Your task to perform on an android device: turn off notifications settings in the gmail app Image 0: 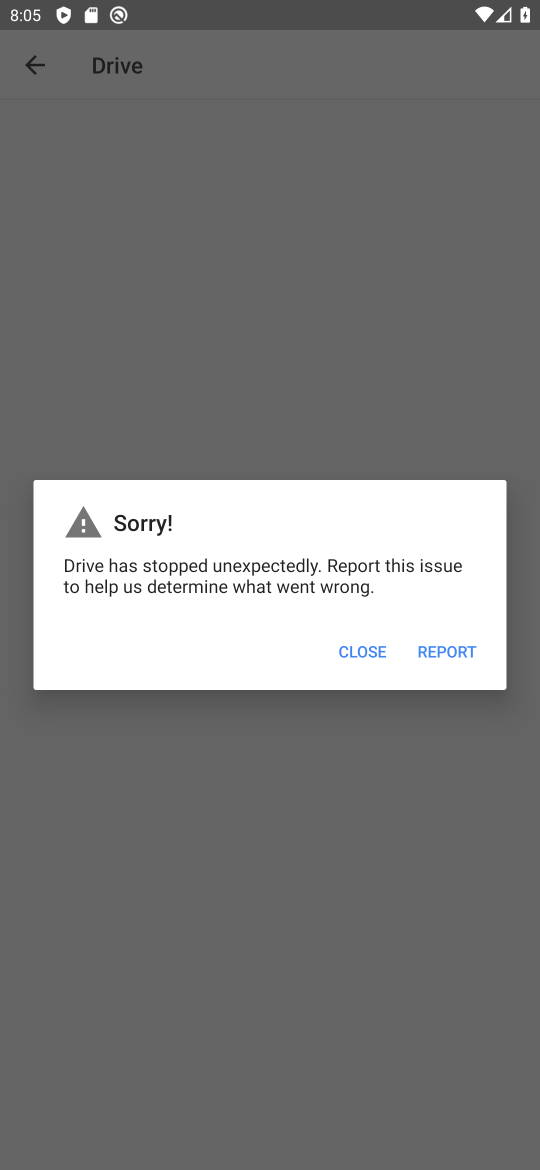
Step 0: press home button
Your task to perform on an android device: turn off notifications settings in the gmail app Image 1: 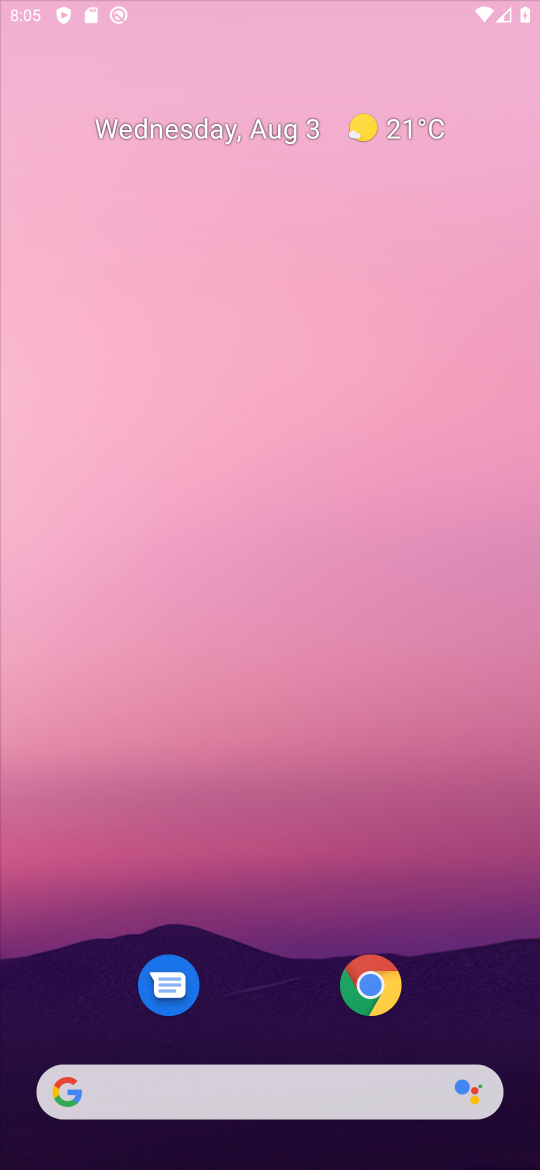
Step 1: drag from (261, 970) to (178, 196)
Your task to perform on an android device: turn off notifications settings in the gmail app Image 2: 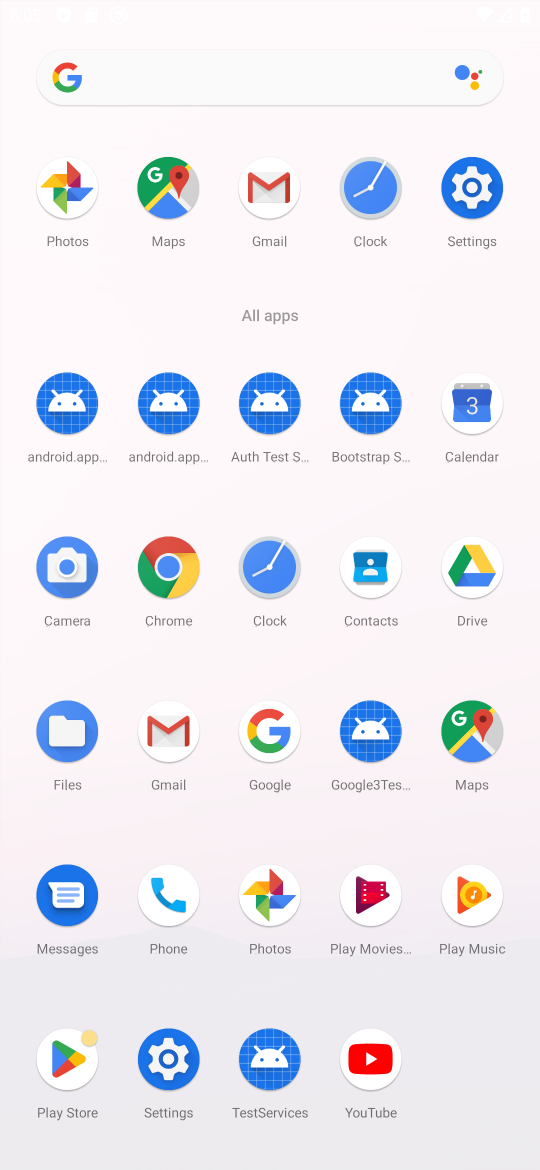
Step 2: click (258, 216)
Your task to perform on an android device: turn off notifications settings in the gmail app Image 3: 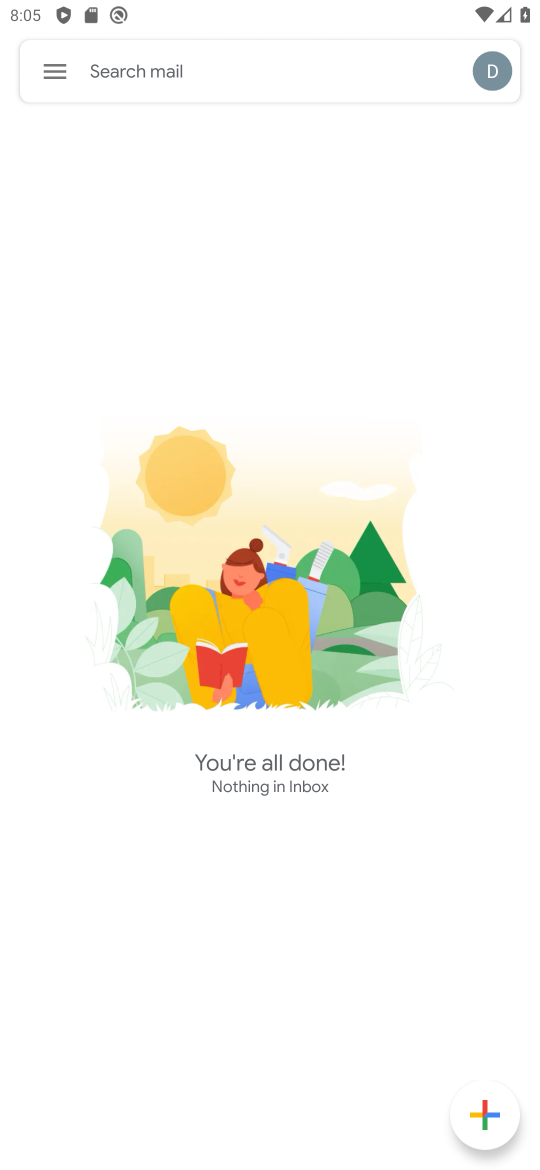
Step 3: click (51, 61)
Your task to perform on an android device: turn off notifications settings in the gmail app Image 4: 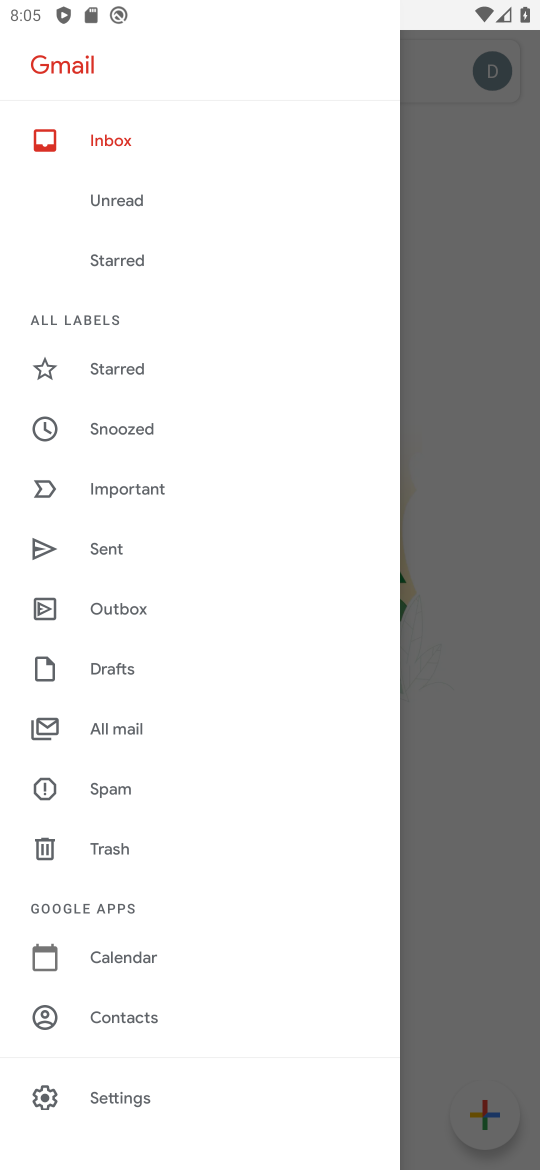
Step 4: click (167, 1089)
Your task to perform on an android device: turn off notifications settings in the gmail app Image 5: 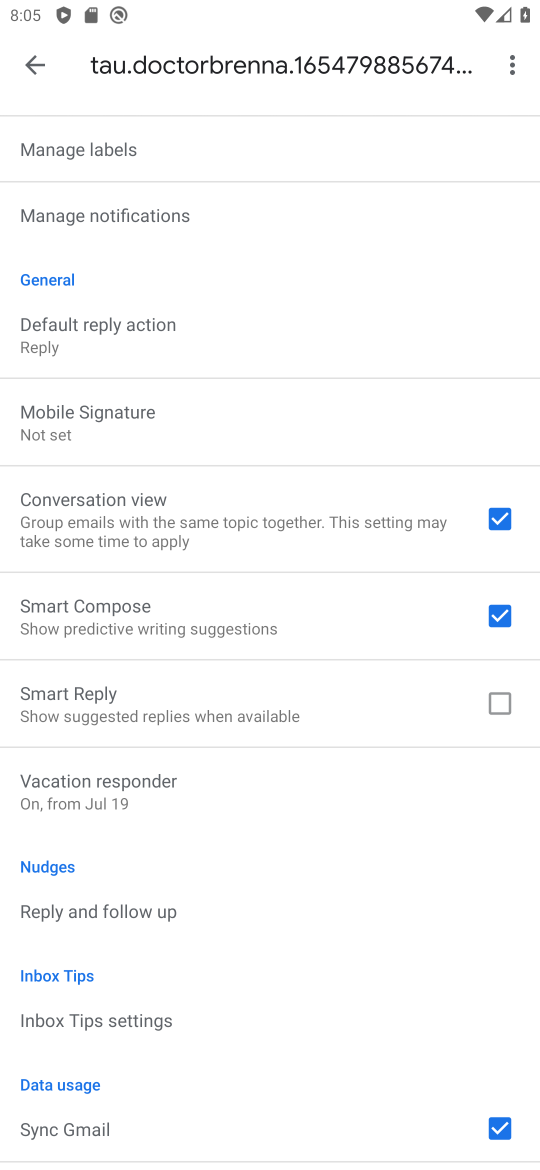
Step 5: click (247, 1014)
Your task to perform on an android device: turn off notifications settings in the gmail app Image 6: 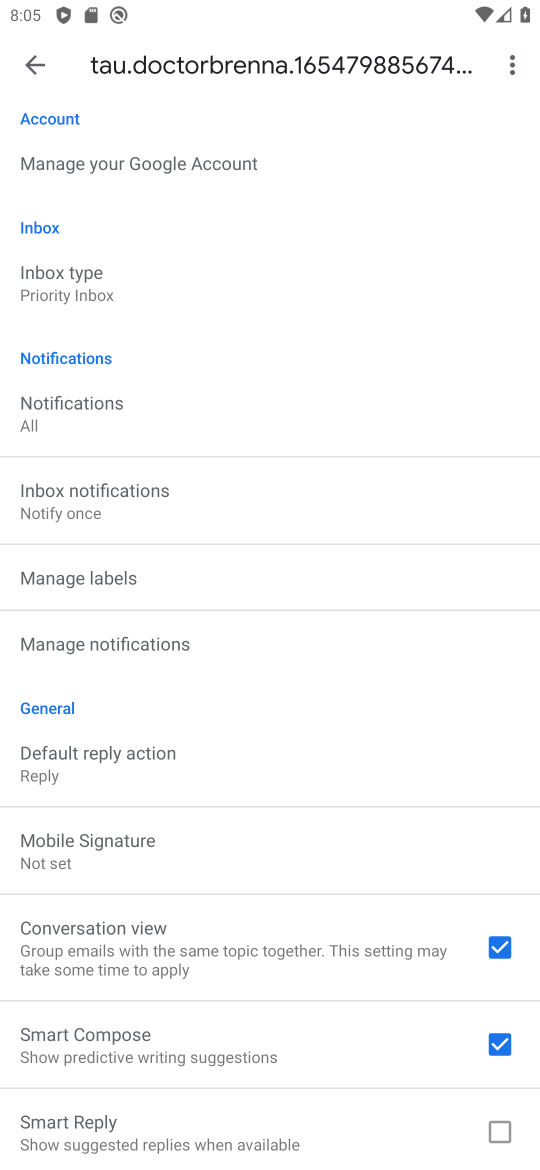
Step 6: click (249, 637)
Your task to perform on an android device: turn off notifications settings in the gmail app Image 7: 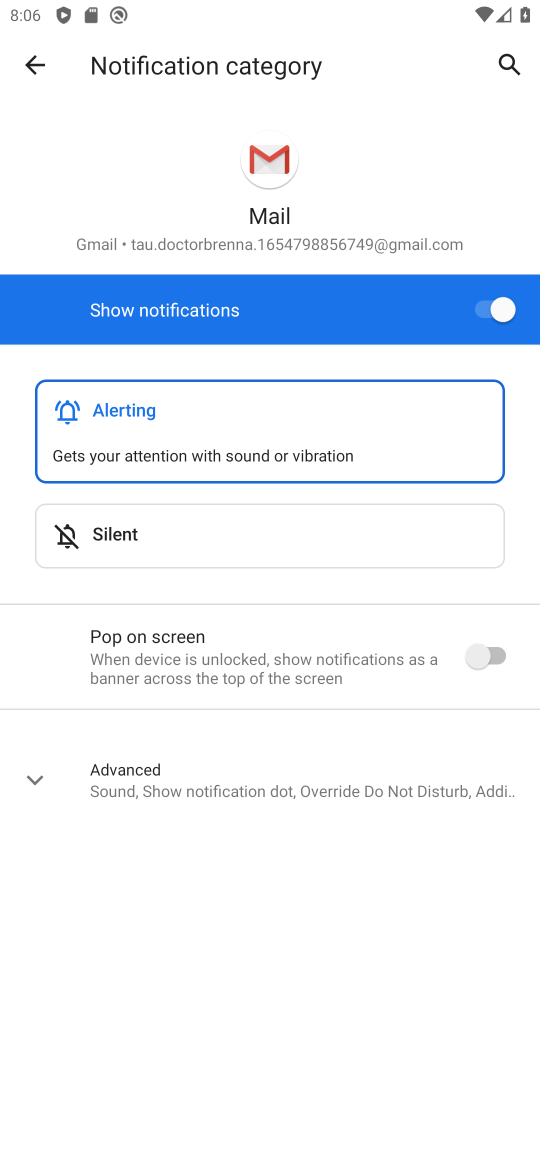
Step 7: click (479, 300)
Your task to perform on an android device: turn off notifications settings in the gmail app Image 8: 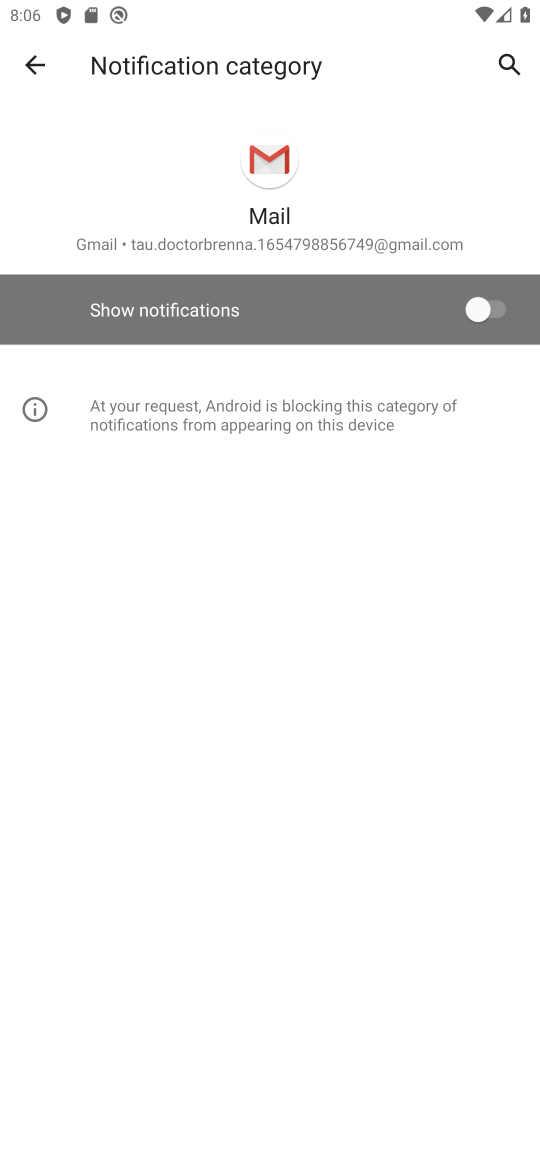
Step 8: task complete